Your task to perform on an android device: turn off picture-in-picture Image 0: 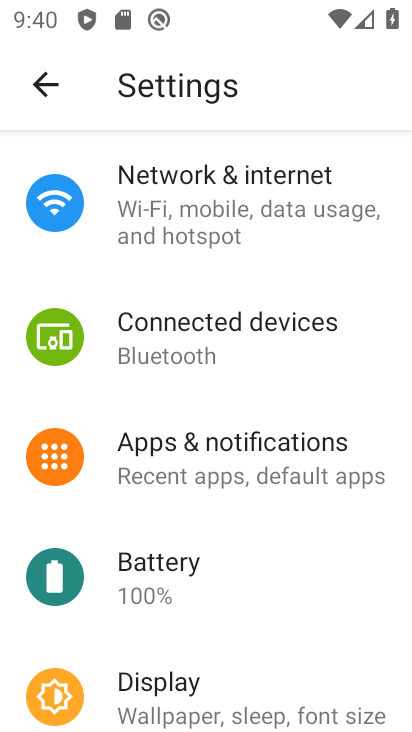
Step 0: press home button
Your task to perform on an android device: turn off picture-in-picture Image 1: 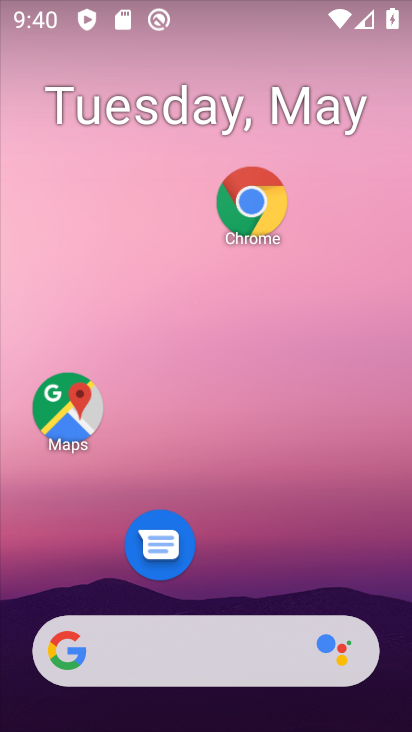
Step 1: click (259, 210)
Your task to perform on an android device: turn off picture-in-picture Image 2: 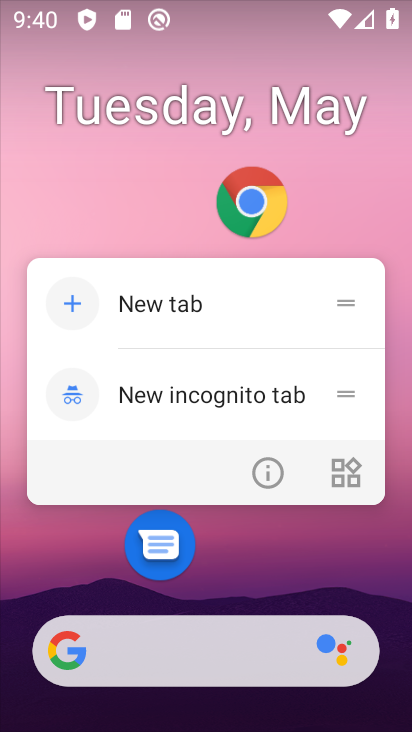
Step 2: click (275, 463)
Your task to perform on an android device: turn off picture-in-picture Image 3: 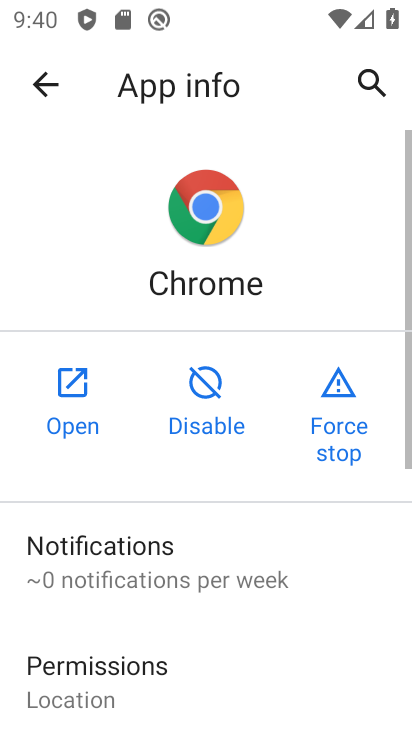
Step 3: drag from (268, 695) to (227, 270)
Your task to perform on an android device: turn off picture-in-picture Image 4: 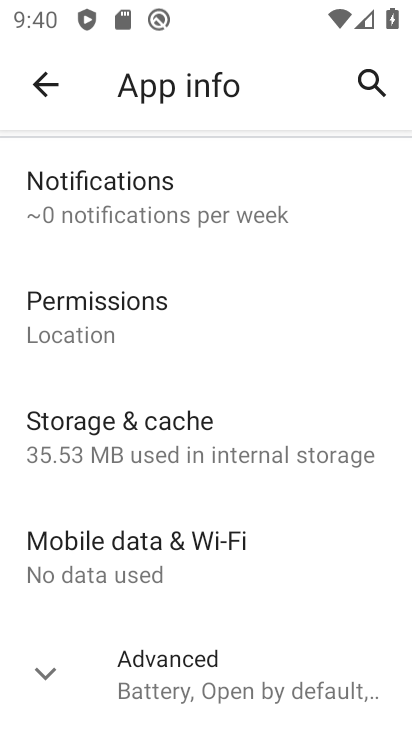
Step 4: click (298, 676)
Your task to perform on an android device: turn off picture-in-picture Image 5: 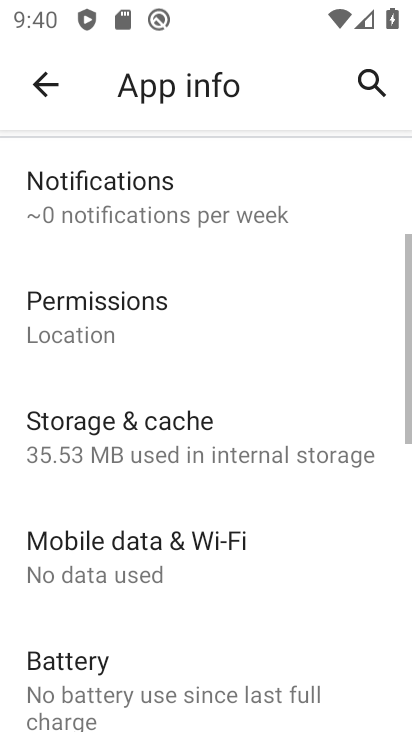
Step 5: drag from (298, 676) to (264, 293)
Your task to perform on an android device: turn off picture-in-picture Image 6: 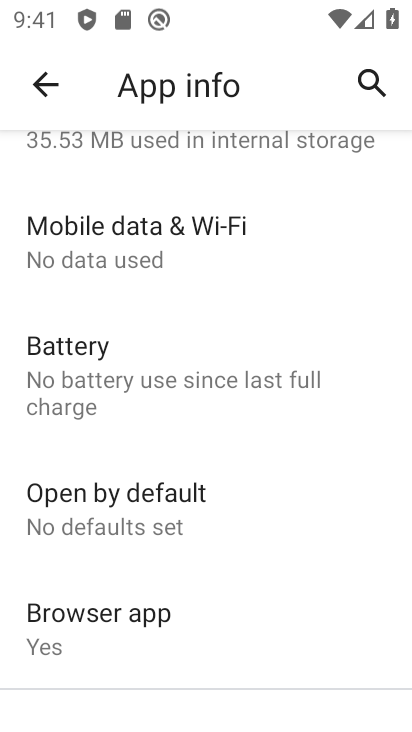
Step 6: drag from (259, 663) to (226, 428)
Your task to perform on an android device: turn off picture-in-picture Image 7: 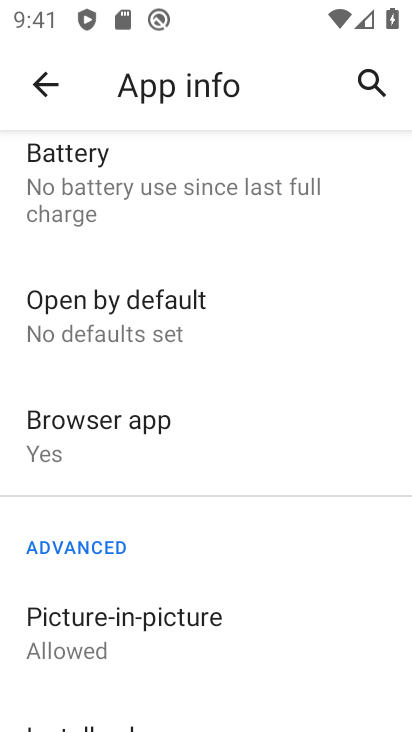
Step 7: click (235, 604)
Your task to perform on an android device: turn off picture-in-picture Image 8: 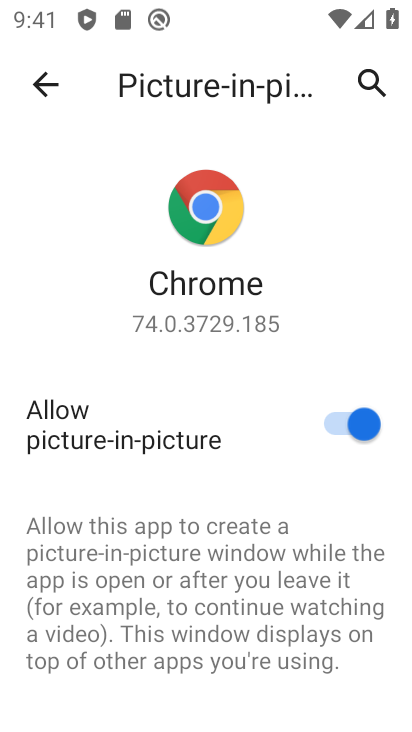
Step 8: click (329, 422)
Your task to perform on an android device: turn off picture-in-picture Image 9: 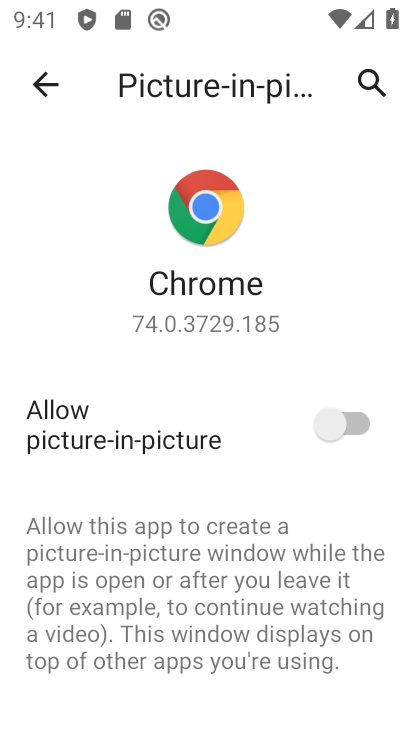
Step 9: task complete